Your task to perform on an android device: Open the stopwatch Image 0: 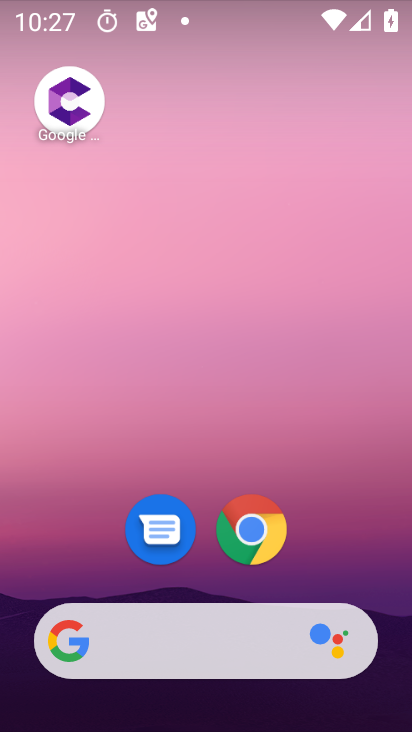
Step 0: task complete